Your task to perform on an android device: change the clock style Image 0: 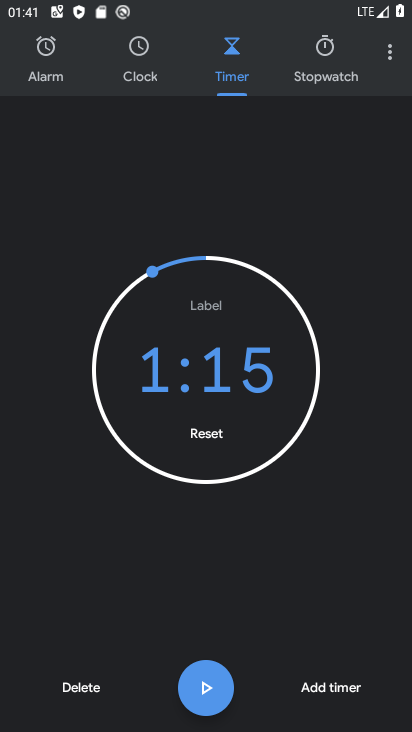
Step 0: press home button
Your task to perform on an android device: change the clock style Image 1: 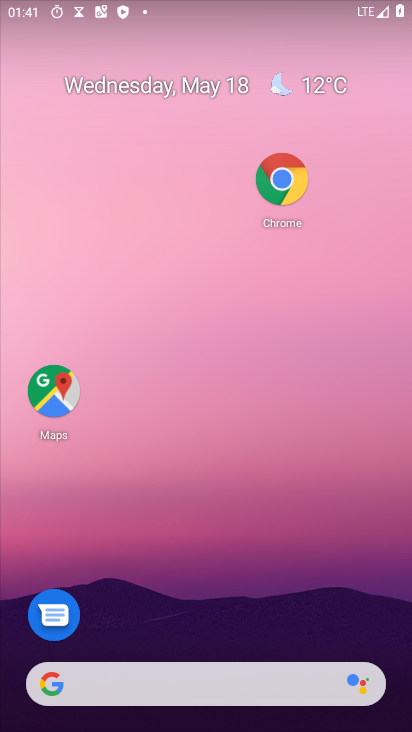
Step 1: drag from (248, 465) to (304, 180)
Your task to perform on an android device: change the clock style Image 2: 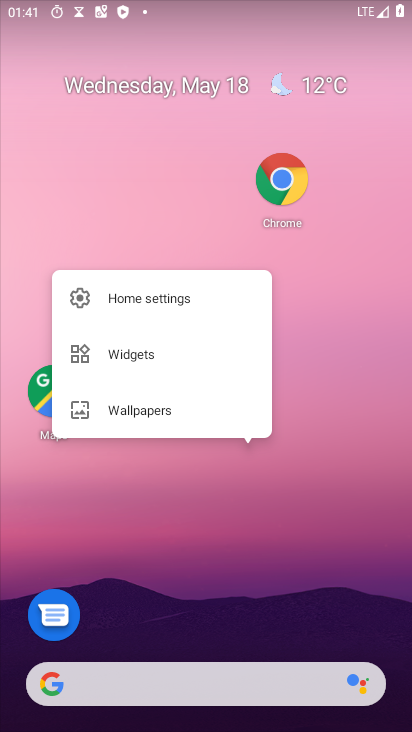
Step 2: drag from (253, 619) to (333, 93)
Your task to perform on an android device: change the clock style Image 3: 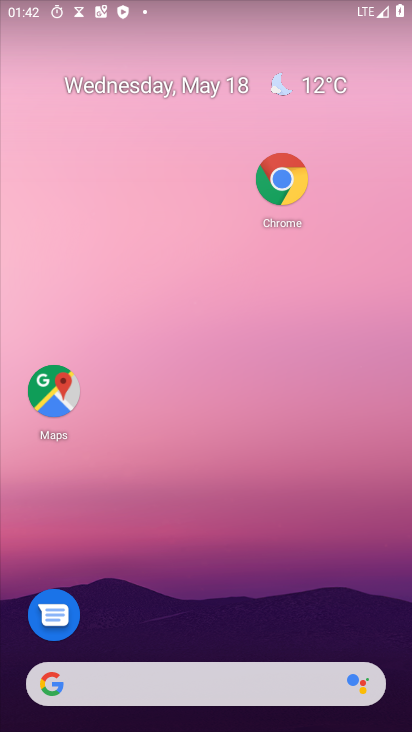
Step 3: drag from (127, 675) to (297, 156)
Your task to perform on an android device: change the clock style Image 4: 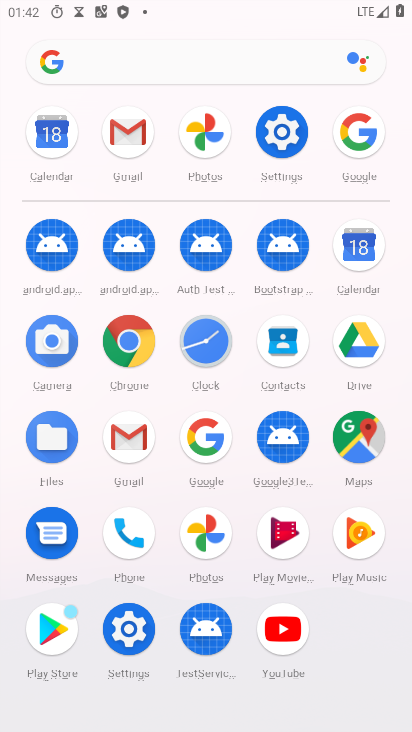
Step 4: click (211, 353)
Your task to perform on an android device: change the clock style Image 5: 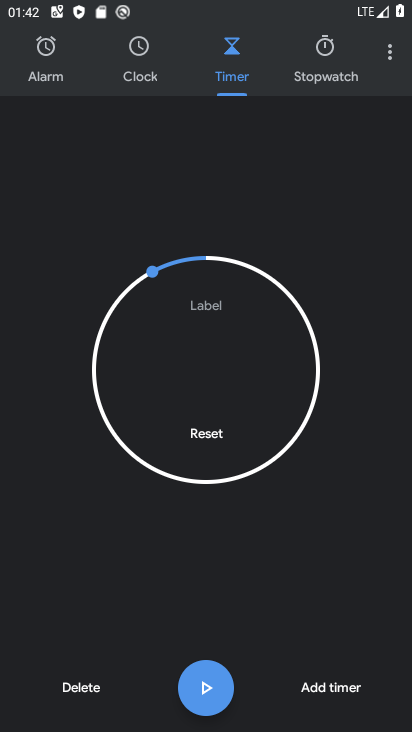
Step 5: click (390, 57)
Your task to perform on an android device: change the clock style Image 6: 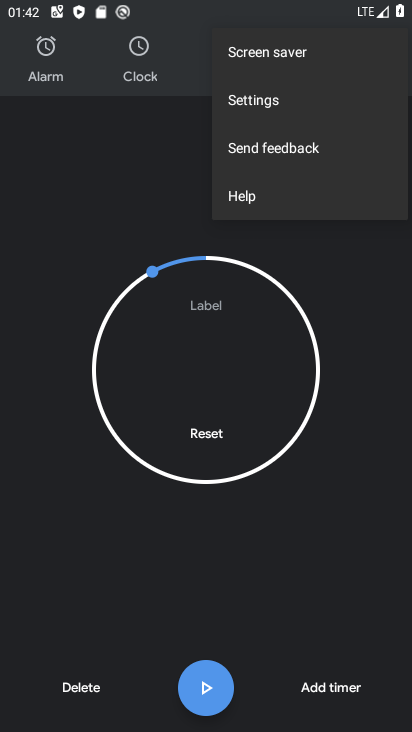
Step 6: click (272, 105)
Your task to perform on an android device: change the clock style Image 7: 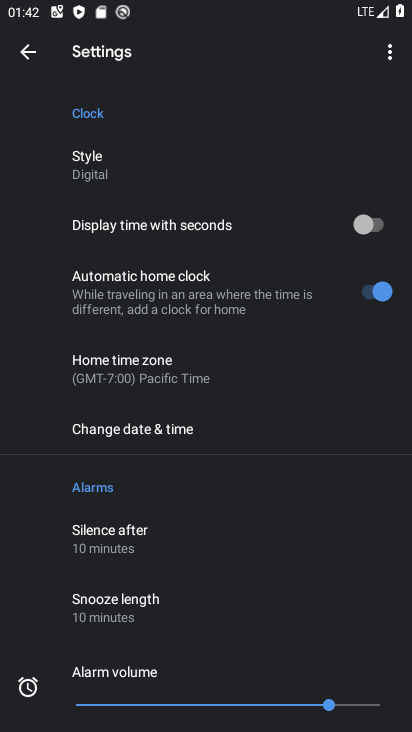
Step 7: click (100, 179)
Your task to perform on an android device: change the clock style Image 8: 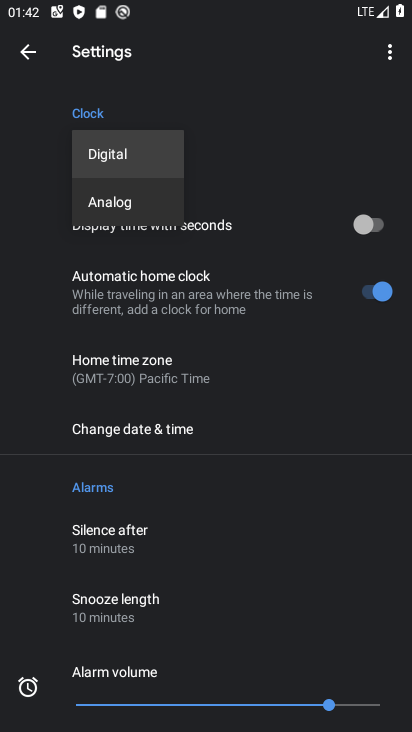
Step 8: click (109, 207)
Your task to perform on an android device: change the clock style Image 9: 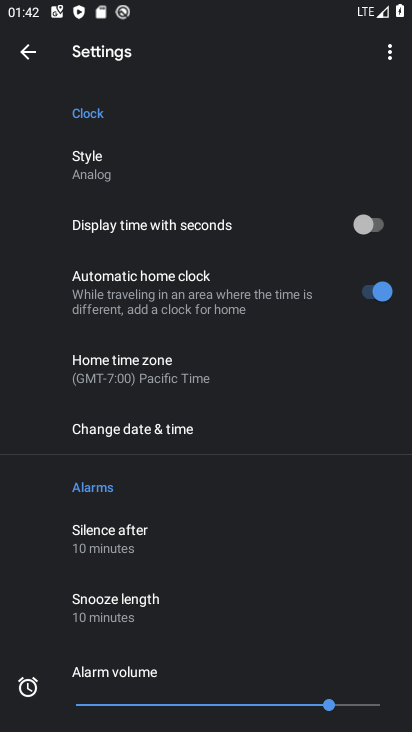
Step 9: task complete